Your task to perform on an android device: What's on Reddit this week Image 0: 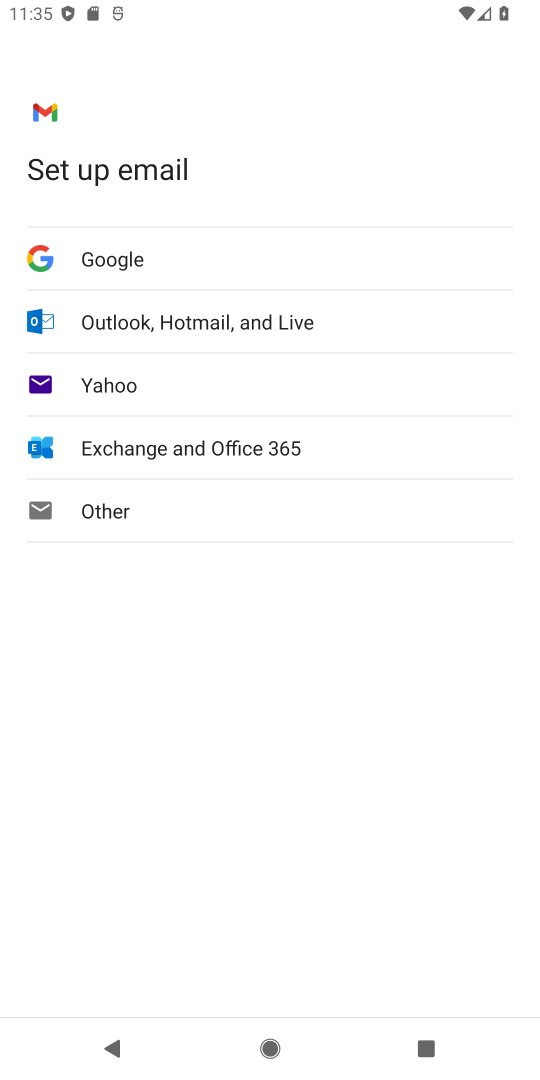
Step 0: press home button
Your task to perform on an android device: What's on Reddit this week Image 1: 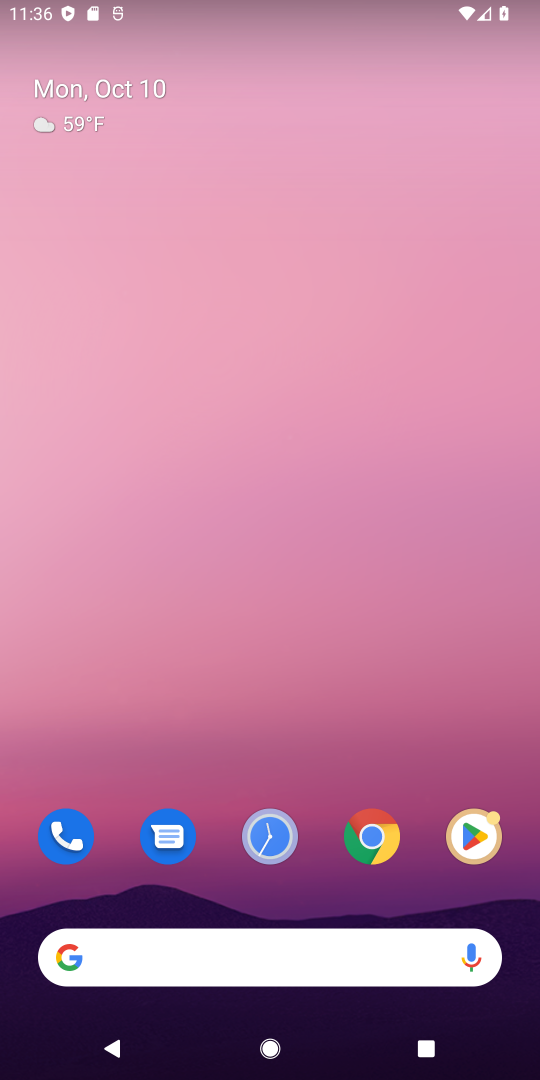
Step 1: click (366, 838)
Your task to perform on an android device: What's on Reddit this week Image 2: 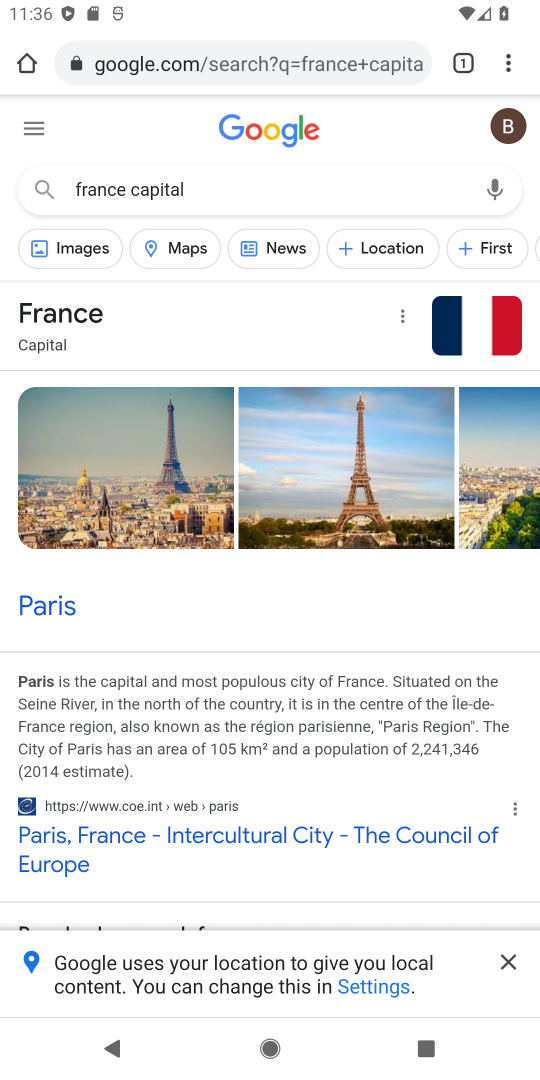
Step 2: click (335, 62)
Your task to perform on an android device: What's on Reddit this week Image 3: 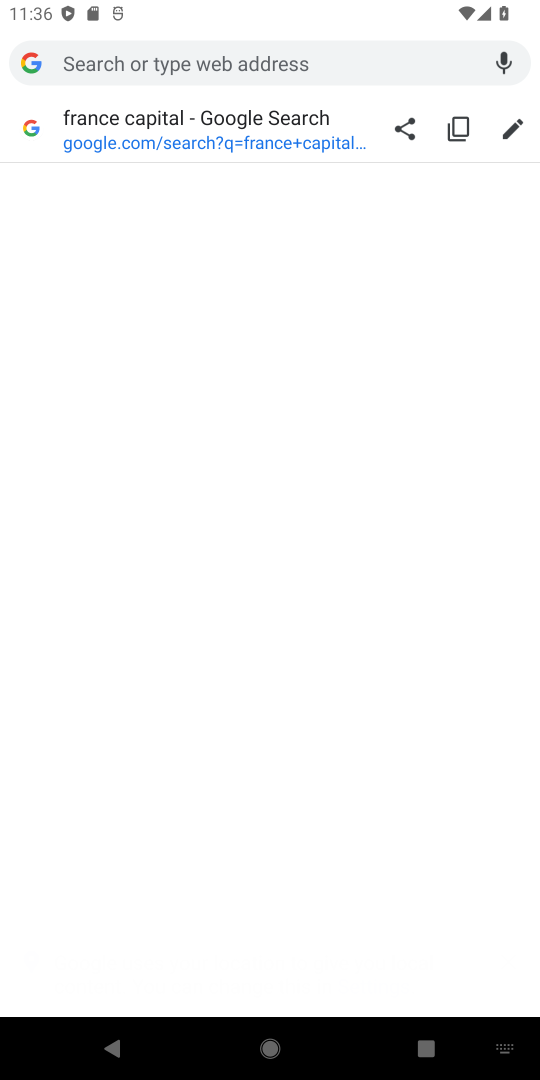
Step 3: type "reddit this week"
Your task to perform on an android device: What's on Reddit this week Image 4: 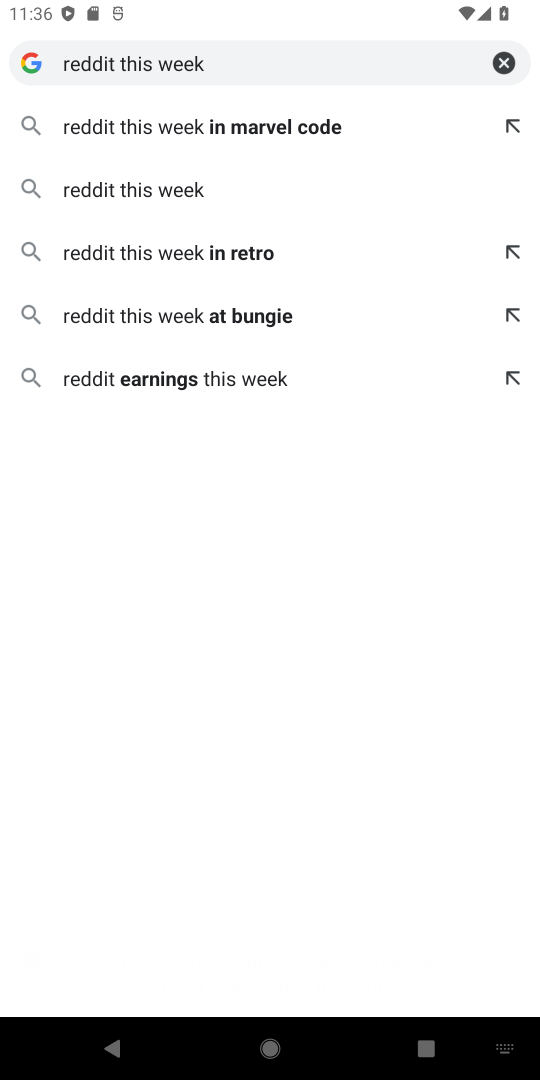
Step 4: click (219, 179)
Your task to perform on an android device: What's on Reddit this week Image 5: 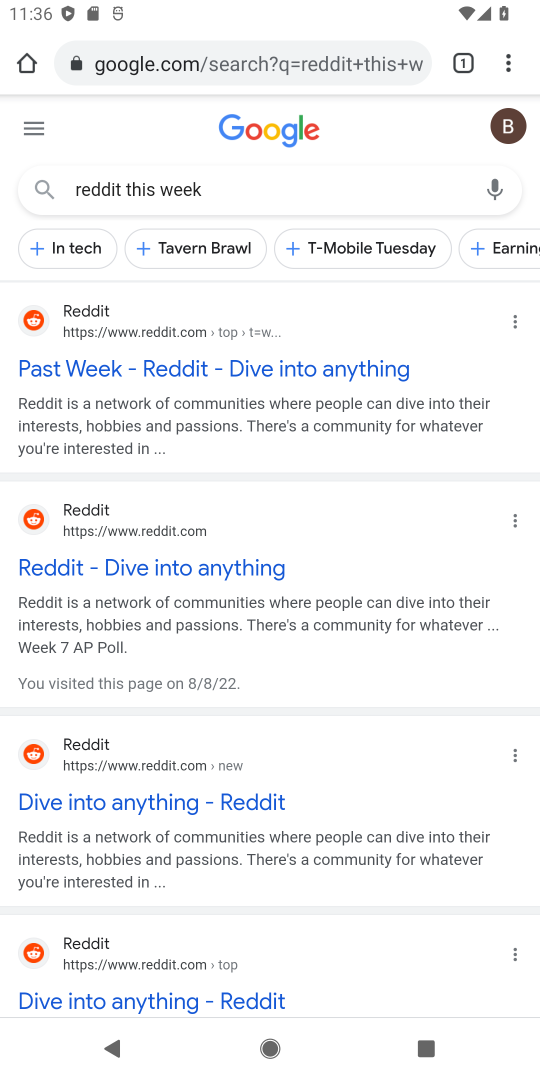
Step 5: click (205, 370)
Your task to perform on an android device: What's on Reddit this week Image 6: 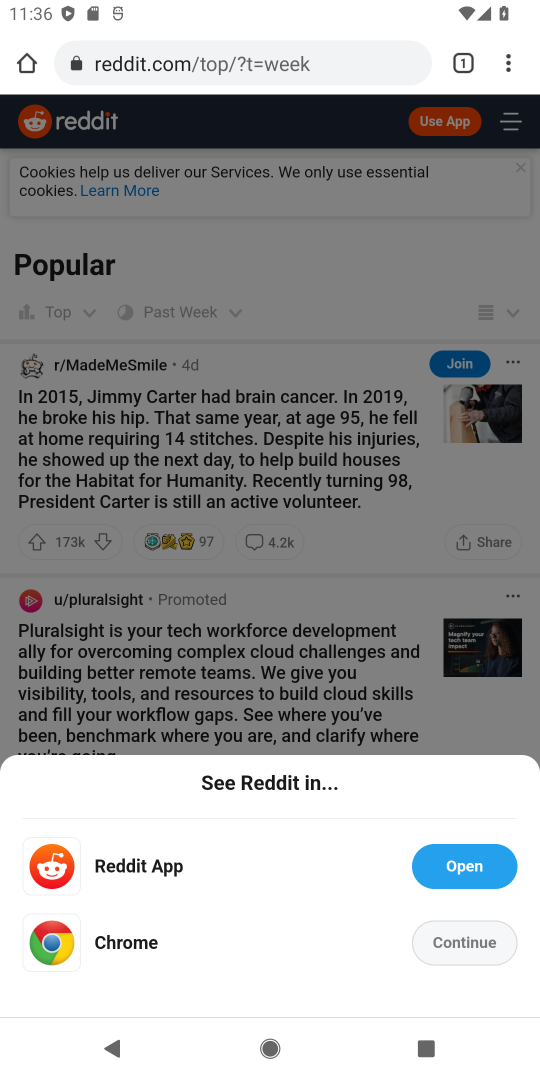
Step 6: click (474, 930)
Your task to perform on an android device: What's on Reddit this week Image 7: 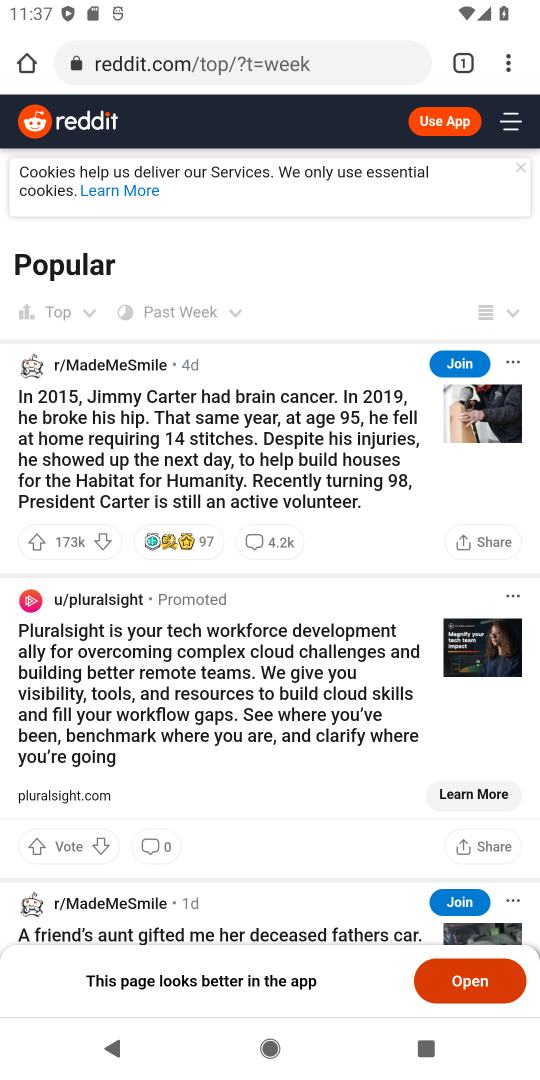
Step 7: task complete